Your task to perform on an android device: turn notification dots off Image 0: 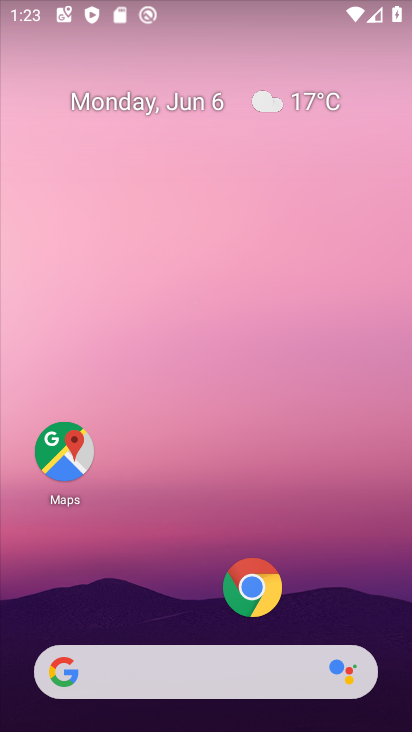
Step 0: drag from (174, 606) to (218, 64)
Your task to perform on an android device: turn notification dots off Image 1: 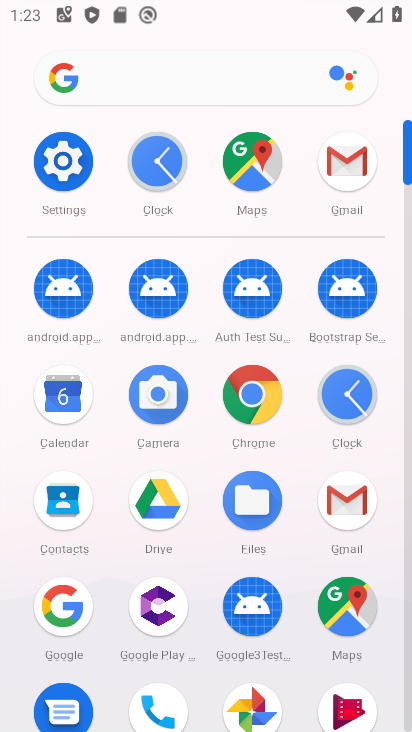
Step 1: click (59, 182)
Your task to perform on an android device: turn notification dots off Image 2: 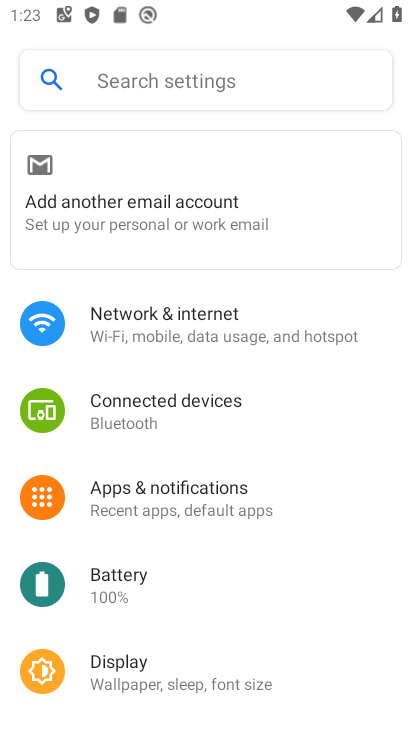
Step 2: click (201, 509)
Your task to perform on an android device: turn notification dots off Image 3: 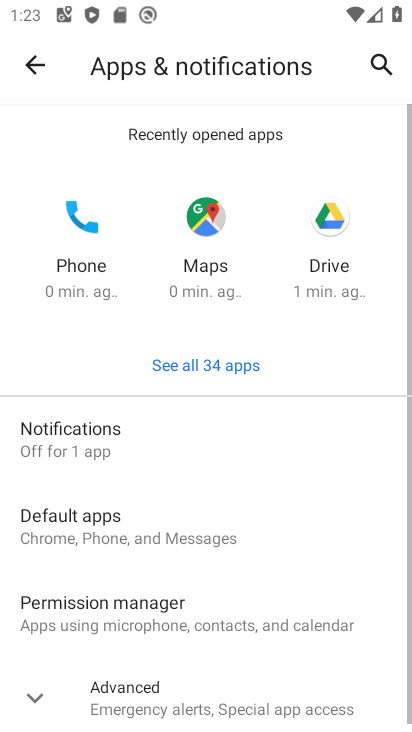
Step 3: drag from (170, 497) to (215, 265)
Your task to perform on an android device: turn notification dots off Image 4: 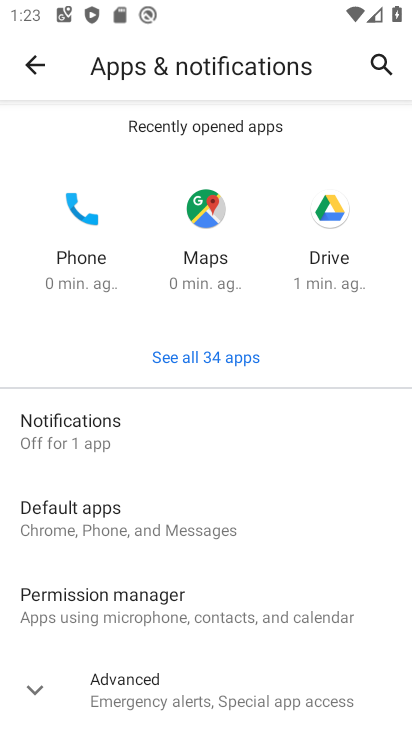
Step 4: click (115, 430)
Your task to perform on an android device: turn notification dots off Image 5: 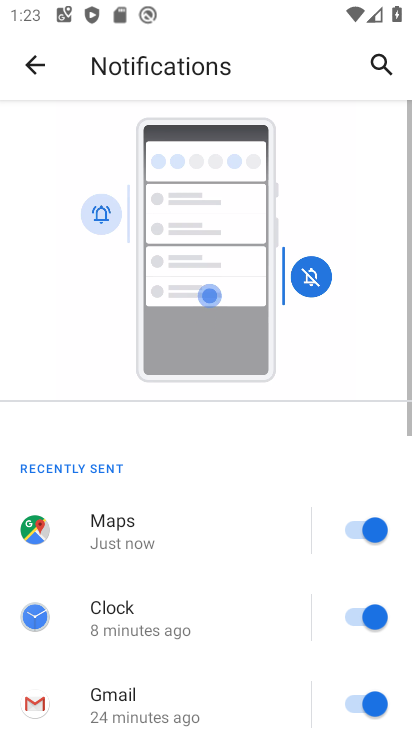
Step 5: drag from (236, 576) to (223, 190)
Your task to perform on an android device: turn notification dots off Image 6: 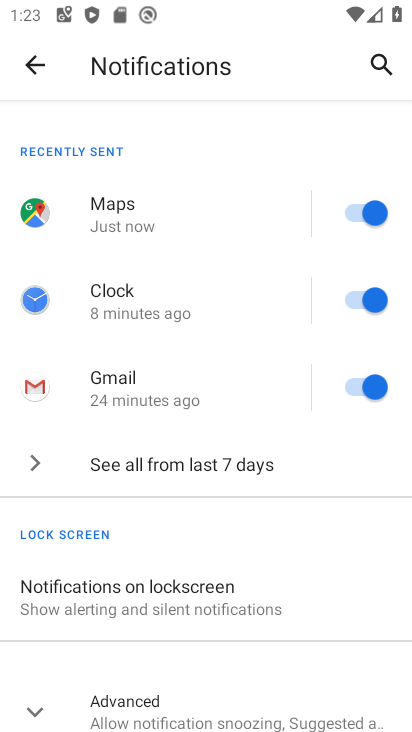
Step 6: drag from (209, 613) to (228, 506)
Your task to perform on an android device: turn notification dots off Image 7: 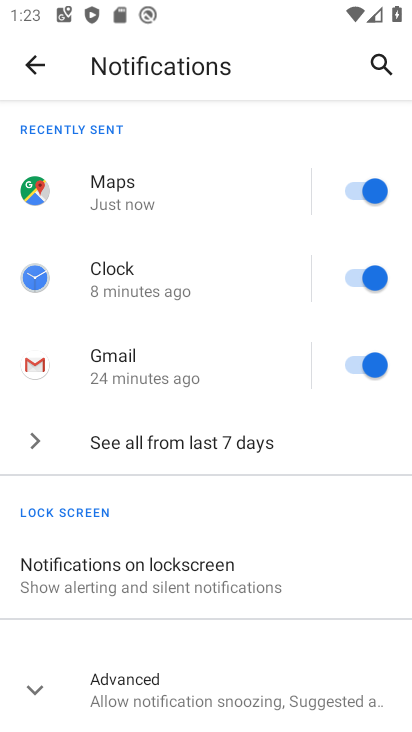
Step 7: click (124, 684)
Your task to perform on an android device: turn notification dots off Image 8: 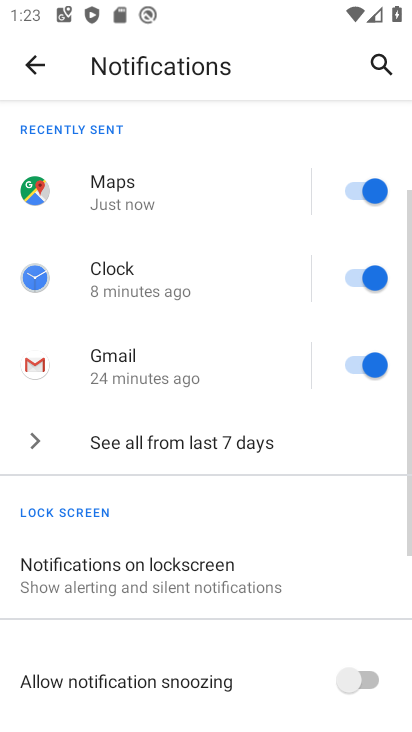
Step 8: drag from (238, 631) to (272, 266)
Your task to perform on an android device: turn notification dots off Image 9: 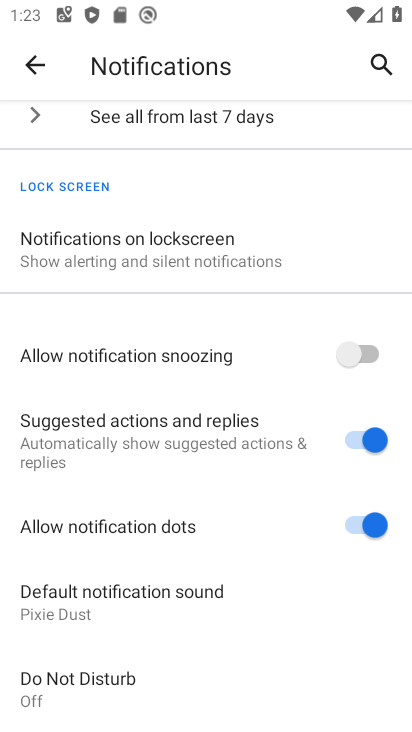
Step 9: click (349, 528)
Your task to perform on an android device: turn notification dots off Image 10: 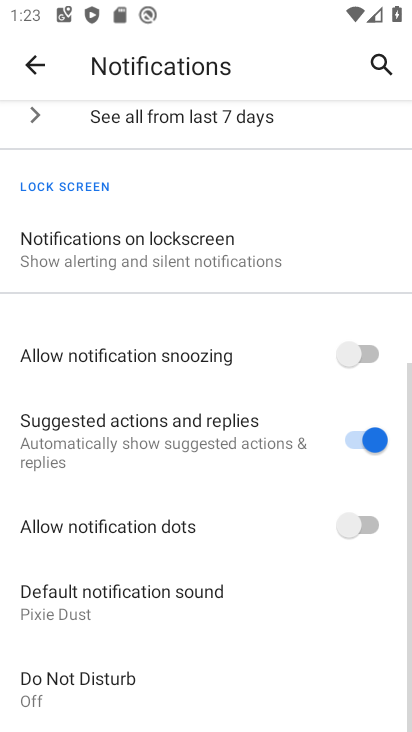
Step 10: task complete